Your task to perform on an android device: Show me recent news Image 0: 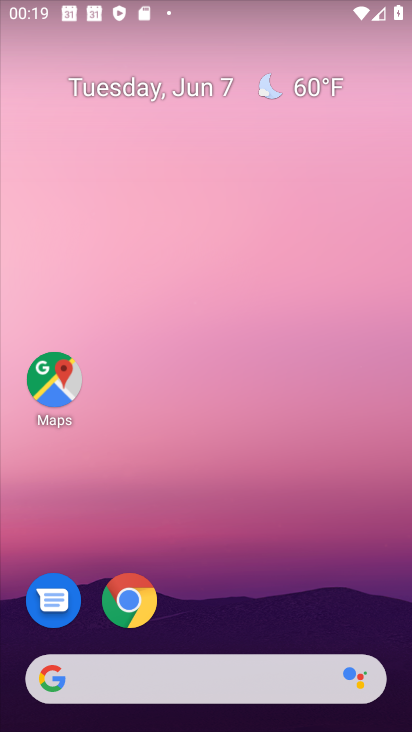
Step 0: drag from (2, 218) to (412, 284)
Your task to perform on an android device: Show me recent news Image 1: 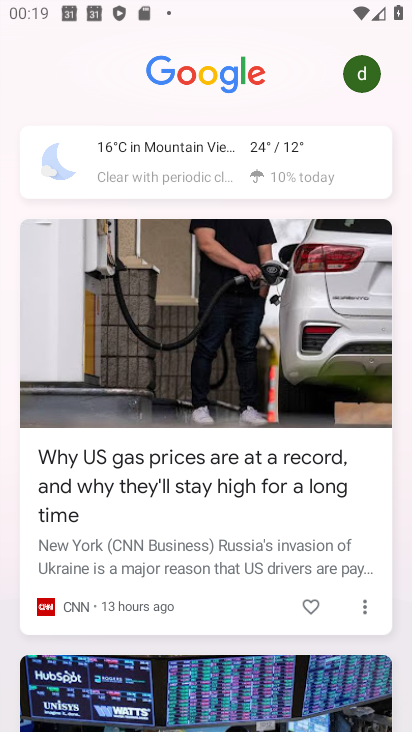
Step 1: task complete